Your task to perform on an android device: Go to network settings Image 0: 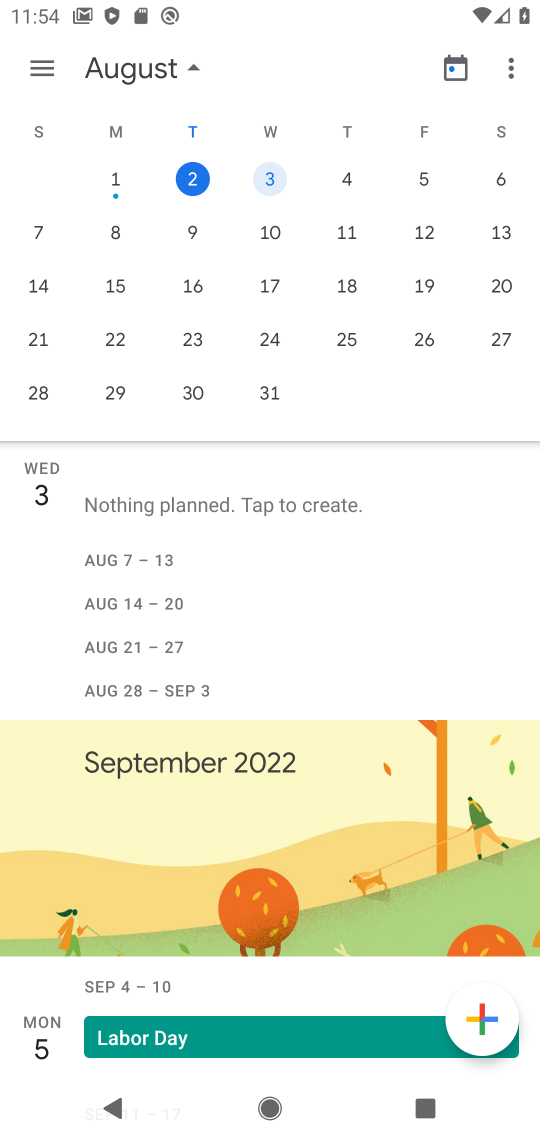
Step 0: press home button
Your task to perform on an android device: Go to network settings Image 1: 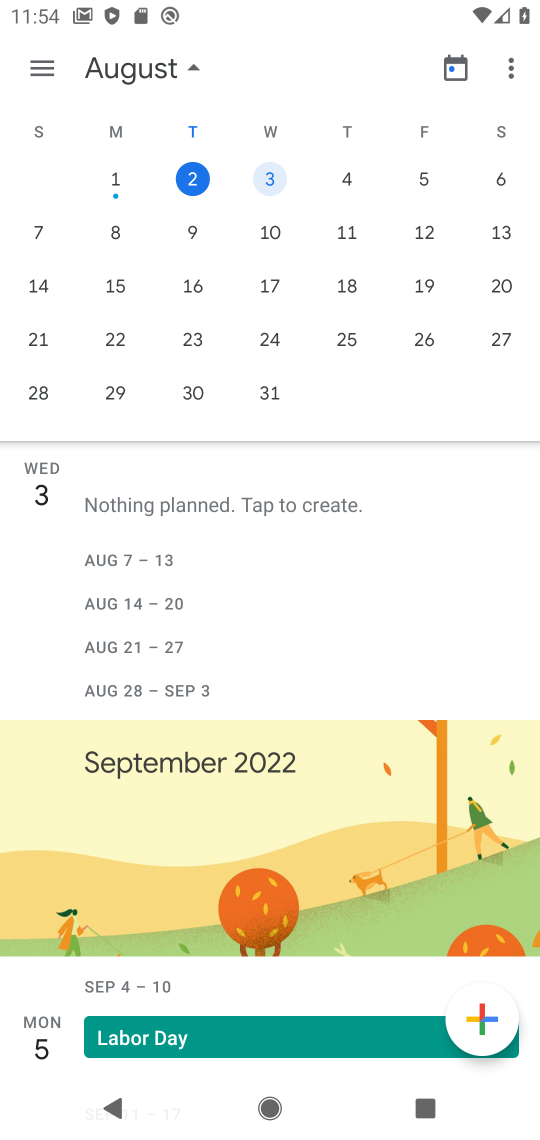
Step 1: press home button
Your task to perform on an android device: Go to network settings Image 2: 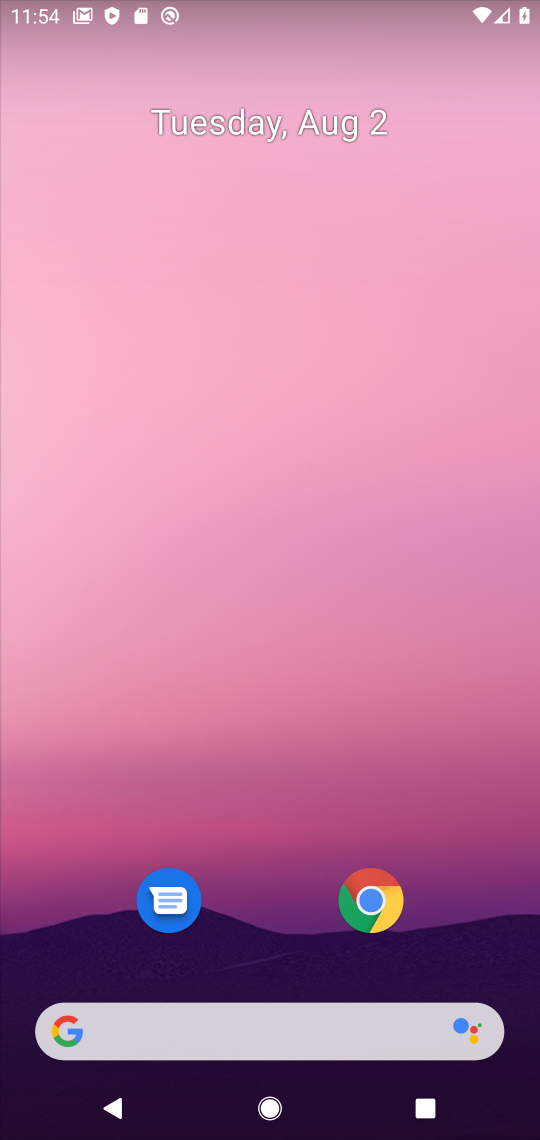
Step 2: drag from (260, 856) to (370, 49)
Your task to perform on an android device: Go to network settings Image 3: 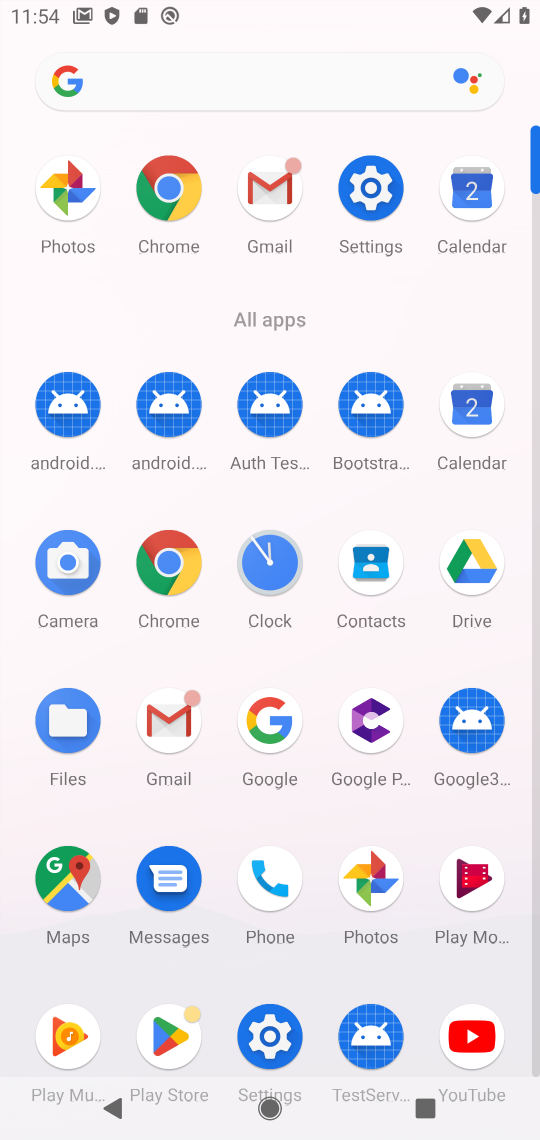
Step 3: click (361, 187)
Your task to perform on an android device: Go to network settings Image 4: 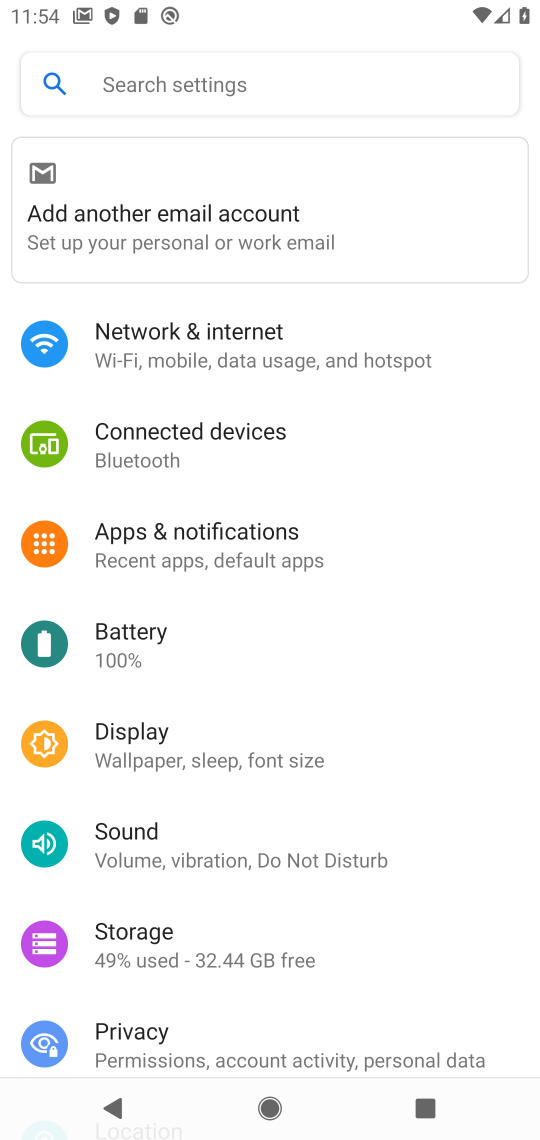
Step 4: click (166, 361)
Your task to perform on an android device: Go to network settings Image 5: 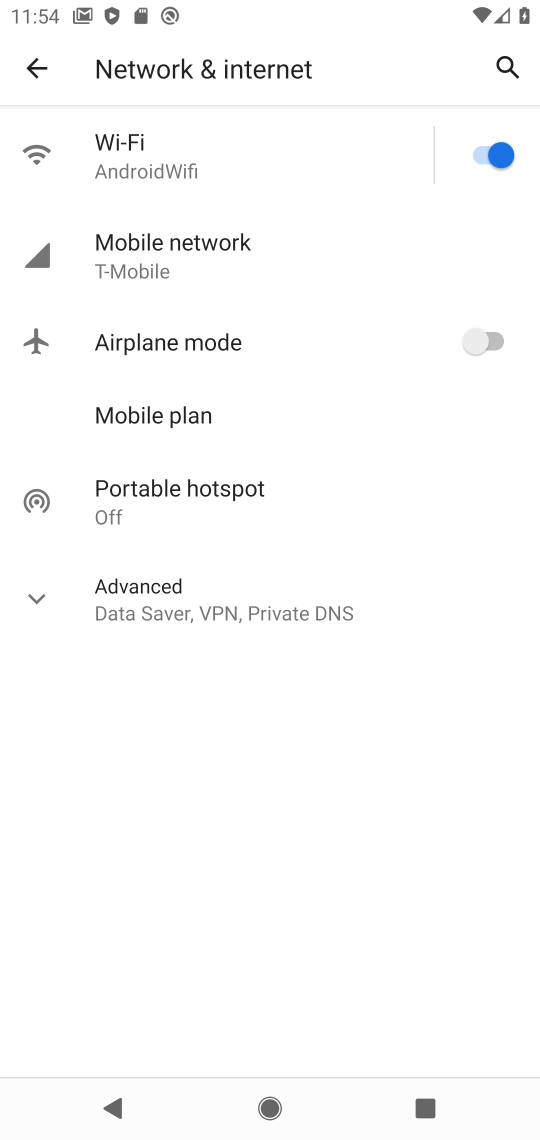
Step 5: task complete